Your task to perform on an android device: Check the news Image 0: 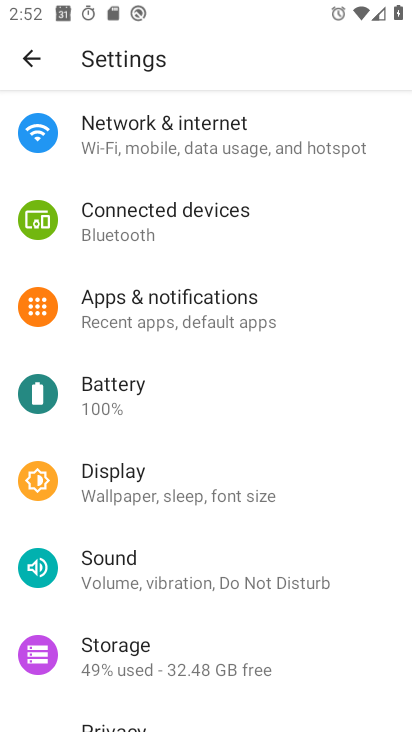
Step 0: press home button
Your task to perform on an android device: Check the news Image 1: 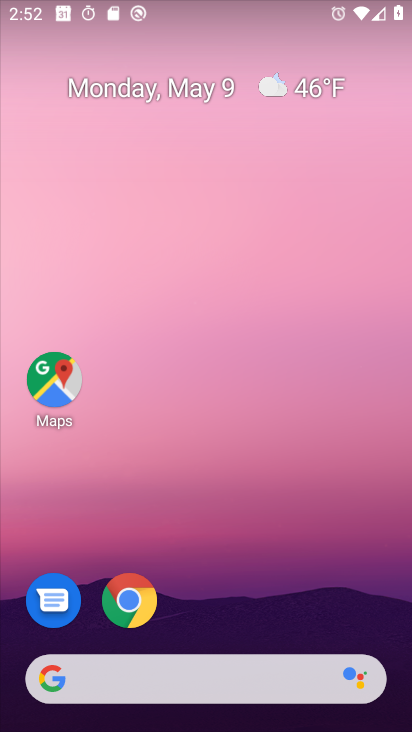
Step 1: task complete